Your task to perform on an android device: Go to Yahoo.com Image 0: 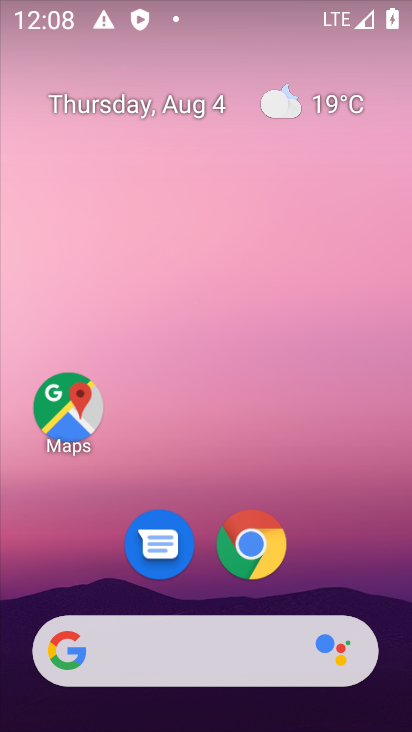
Step 0: click (260, 540)
Your task to perform on an android device: Go to Yahoo.com Image 1: 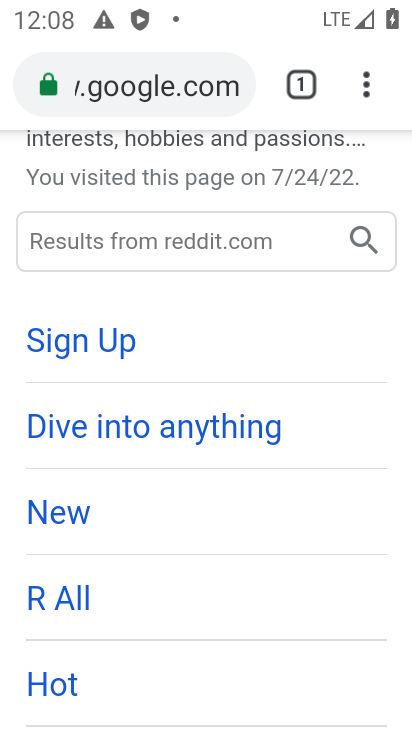
Step 1: click (241, 97)
Your task to perform on an android device: Go to Yahoo.com Image 2: 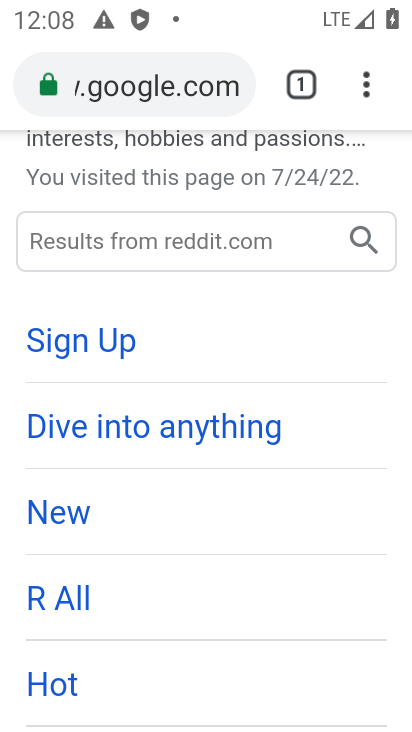
Step 2: click (242, 87)
Your task to perform on an android device: Go to Yahoo.com Image 3: 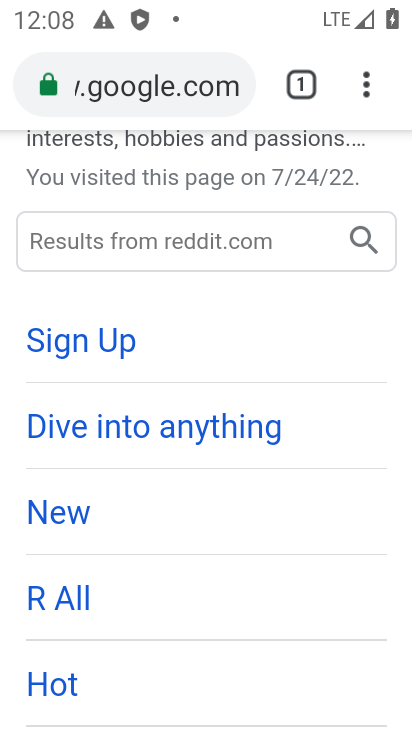
Step 3: click (241, 87)
Your task to perform on an android device: Go to Yahoo.com Image 4: 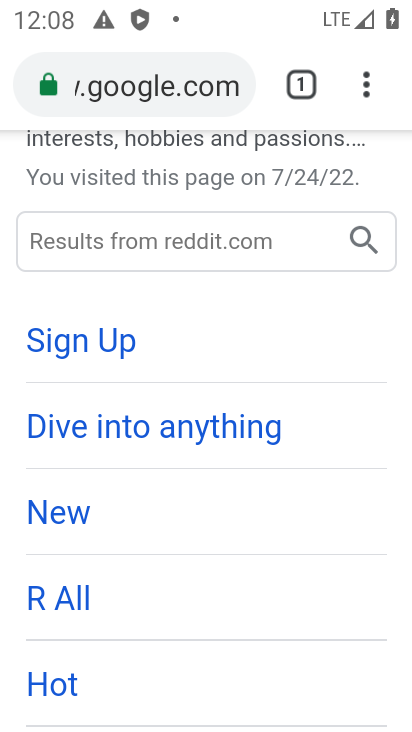
Step 4: click (230, 83)
Your task to perform on an android device: Go to Yahoo.com Image 5: 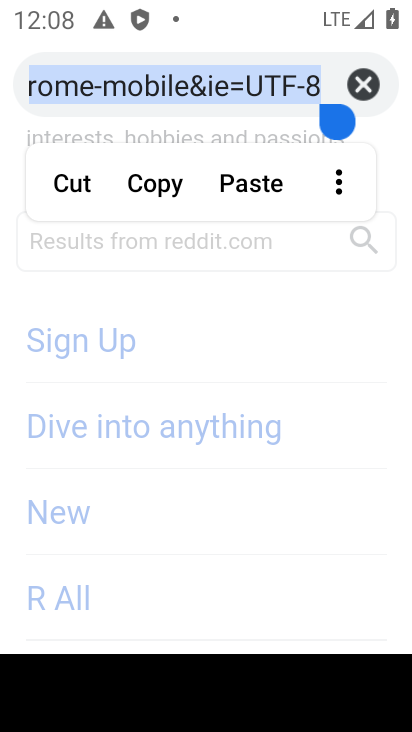
Step 5: click (358, 86)
Your task to perform on an android device: Go to Yahoo.com Image 6: 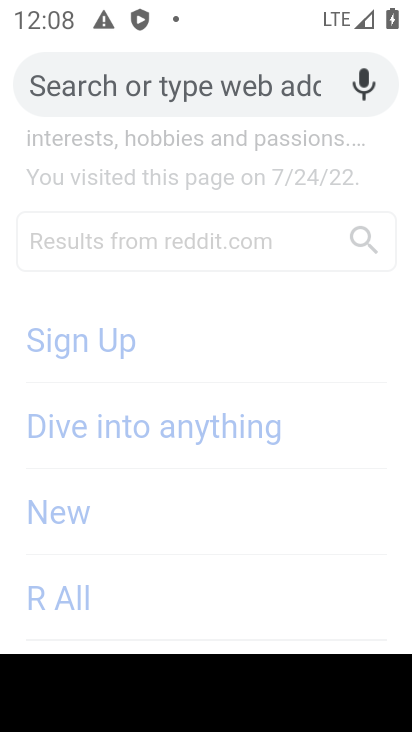
Step 6: type "Yahoo.com"
Your task to perform on an android device: Go to Yahoo.com Image 7: 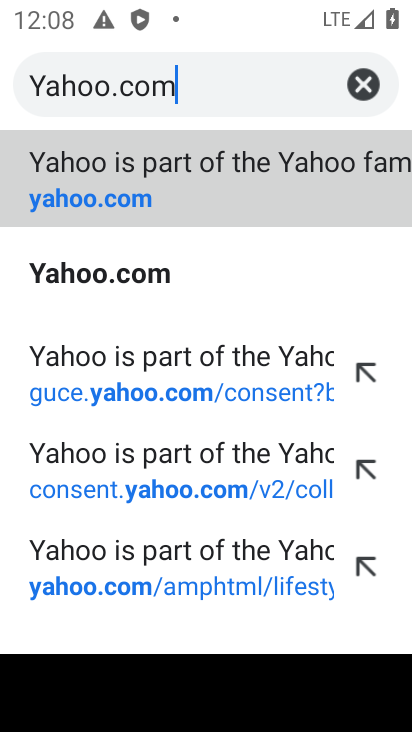
Step 7: click (132, 279)
Your task to perform on an android device: Go to Yahoo.com Image 8: 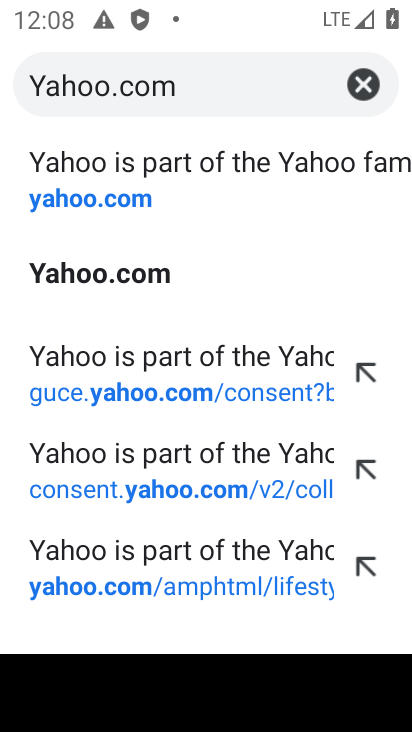
Step 8: click (69, 269)
Your task to perform on an android device: Go to Yahoo.com Image 9: 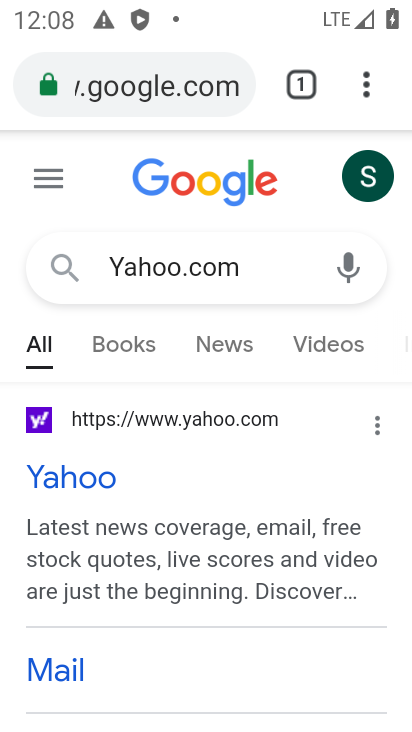
Step 9: task complete